Your task to perform on an android device: Open Youtube and go to the subscriptions tab Image 0: 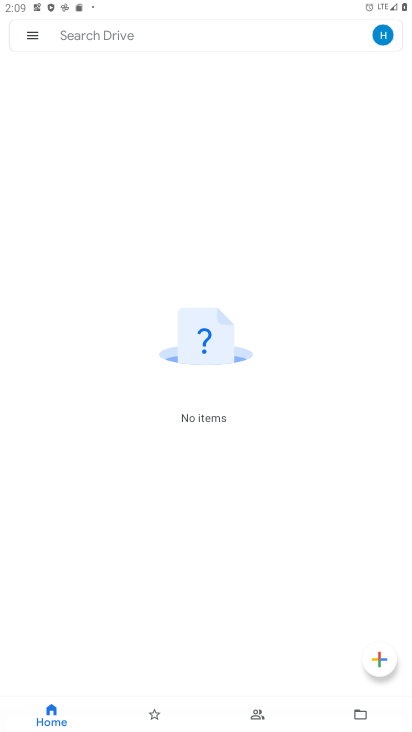
Step 0: press home button
Your task to perform on an android device: Open Youtube and go to the subscriptions tab Image 1: 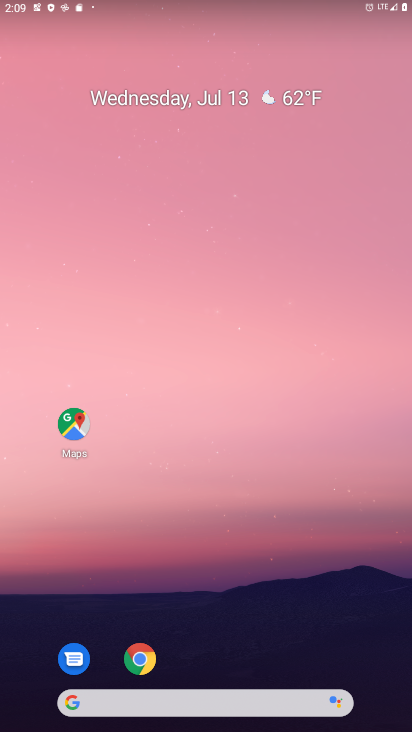
Step 1: drag from (210, 670) to (218, 166)
Your task to perform on an android device: Open Youtube and go to the subscriptions tab Image 2: 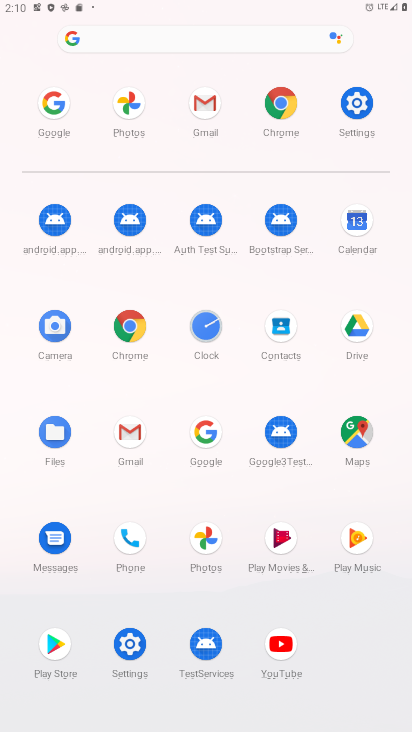
Step 2: click (280, 651)
Your task to perform on an android device: Open Youtube and go to the subscriptions tab Image 3: 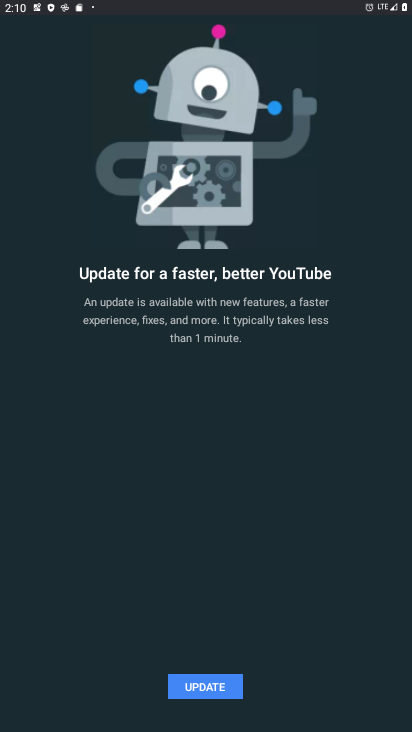
Step 3: task complete